Your task to perform on an android device: Open accessibility settings Image 0: 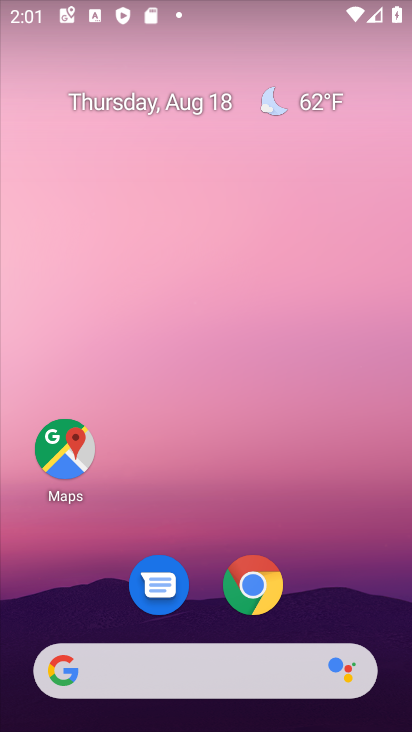
Step 0: drag from (323, 596) to (350, 16)
Your task to perform on an android device: Open accessibility settings Image 1: 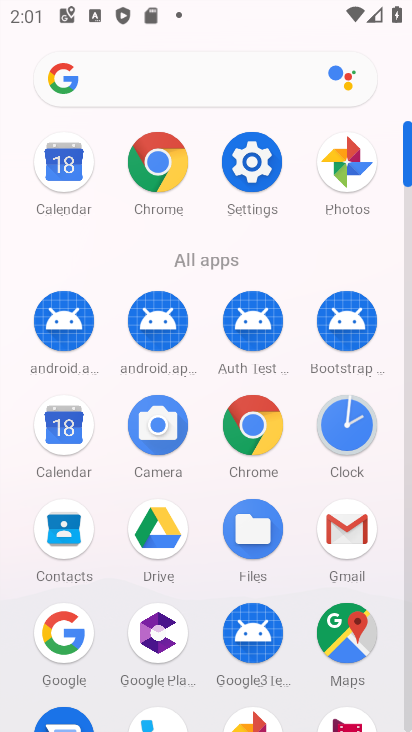
Step 1: click (255, 159)
Your task to perform on an android device: Open accessibility settings Image 2: 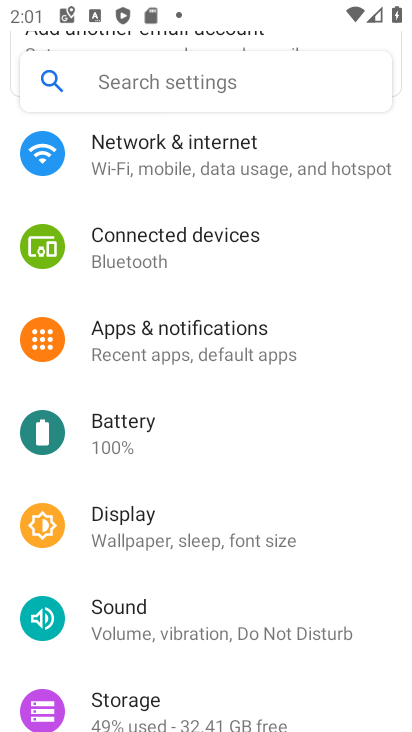
Step 2: drag from (212, 579) to (228, 1)
Your task to perform on an android device: Open accessibility settings Image 3: 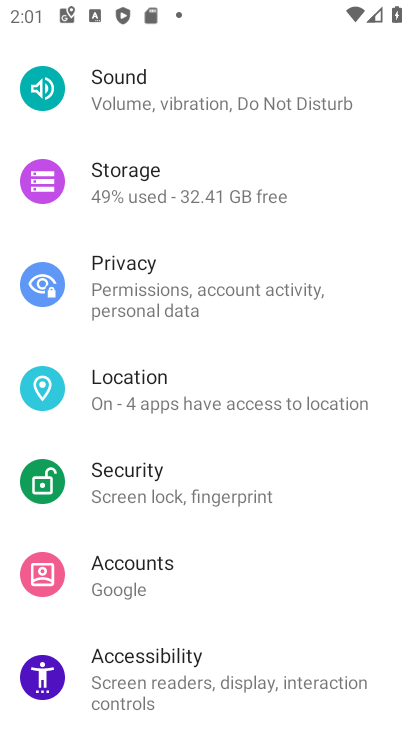
Step 3: click (196, 664)
Your task to perform on an android device: Open accessibility settings Image 4: 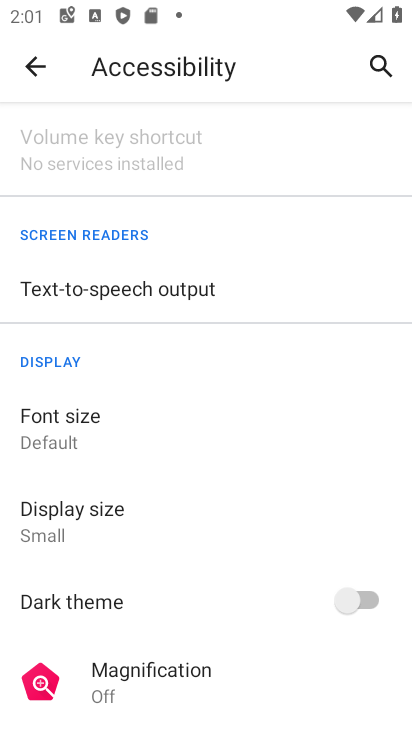
Step 4: task complete